Your task to perform on an android device: uninstall "Microsoft Authenticator" Image 0: 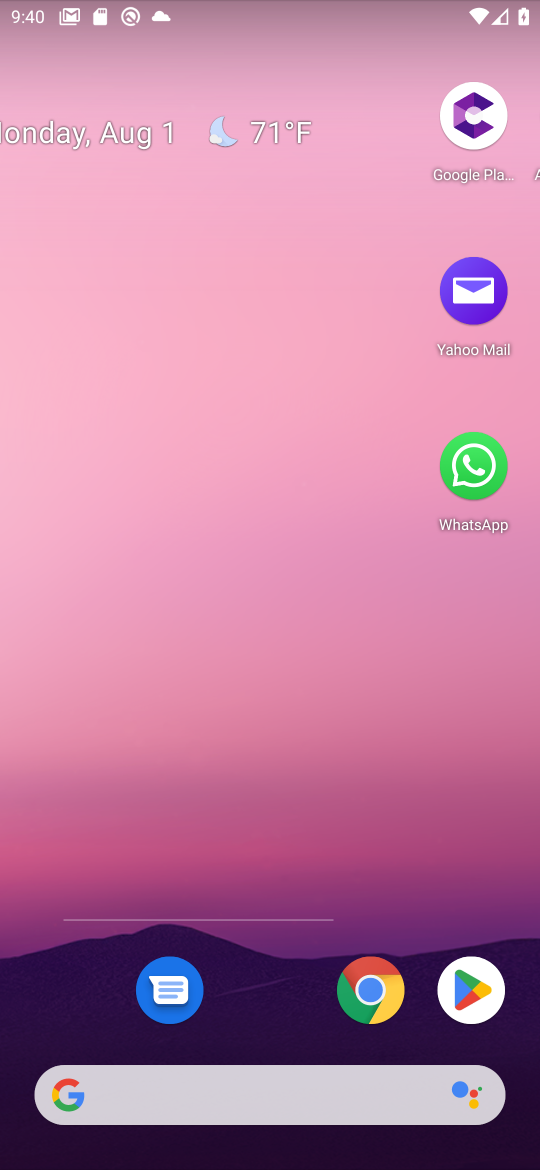
Step 0: press home button
Your task to perform on an android device: uninstall "Microsoft Authenticator" Image 1: 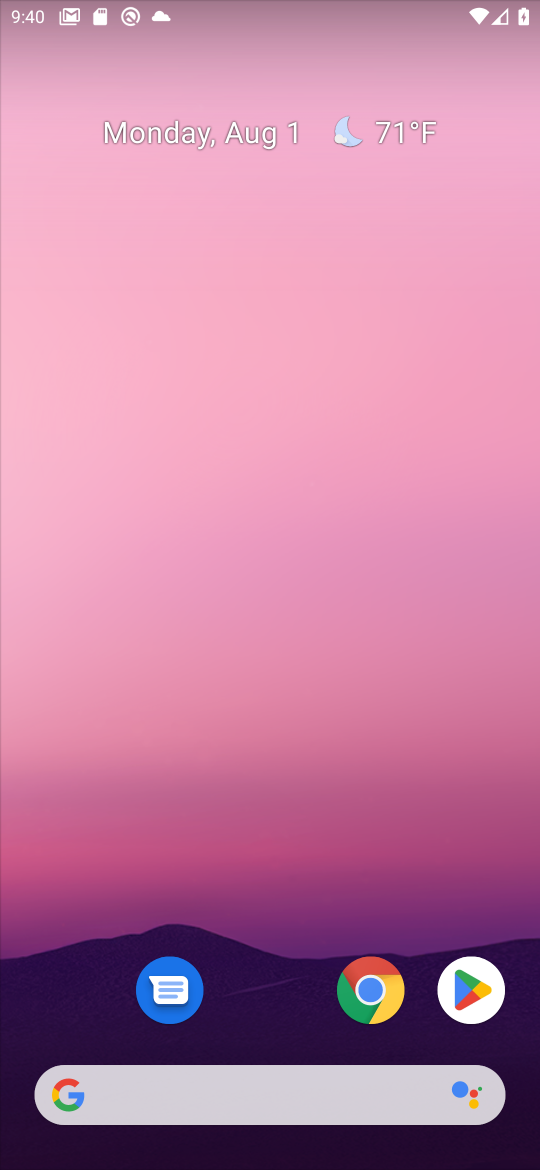
Step 1: press home button
Your task to perform on an android device: uninstall "Microsoft Authenticator" Image 2: 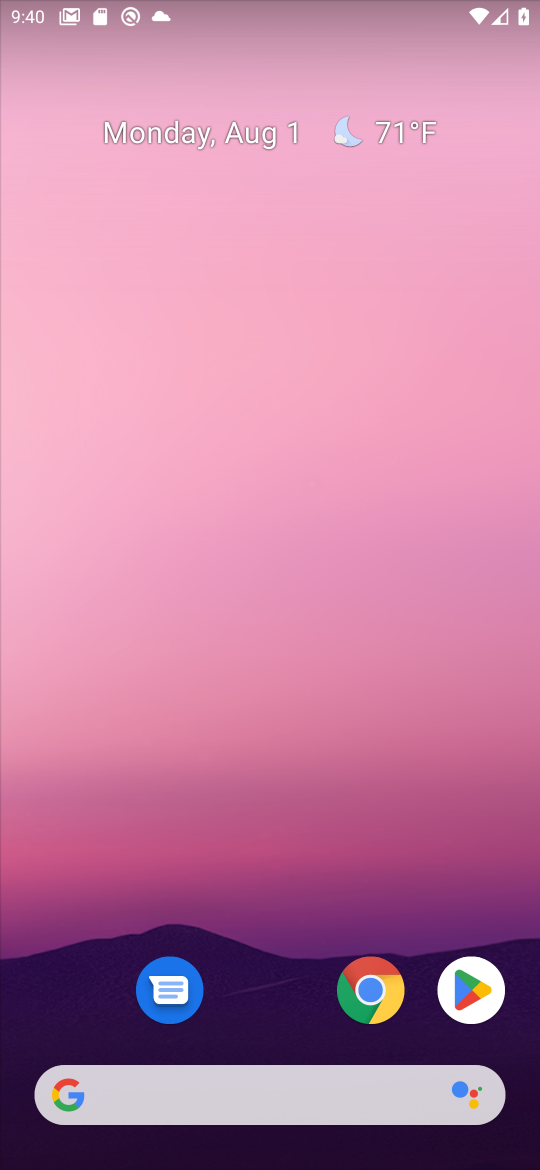
Step 2: click (450, 1026)
Your task to perform on an android device: uninstall "Microsoft Authenticator" Image 3: 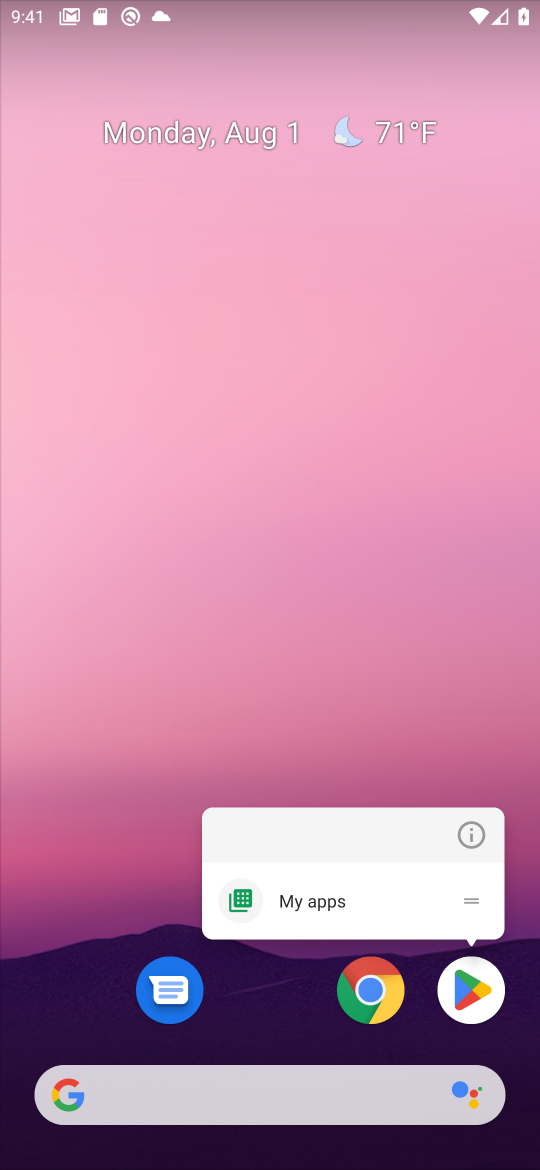
Step 3: click (470, 993)
Your task to perform on an android device: uninstall "Microsoft Authenticator" Image 4: 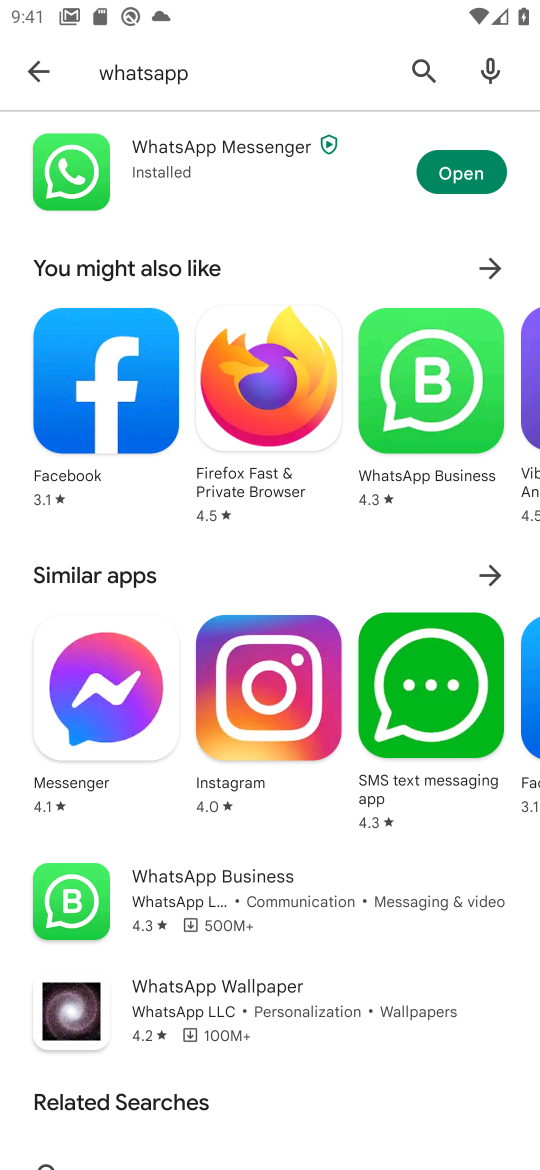
Step 4: click (420, 74)
Your task to perform on an android device: uninstall "Microsoft Authenticator" Image 5: 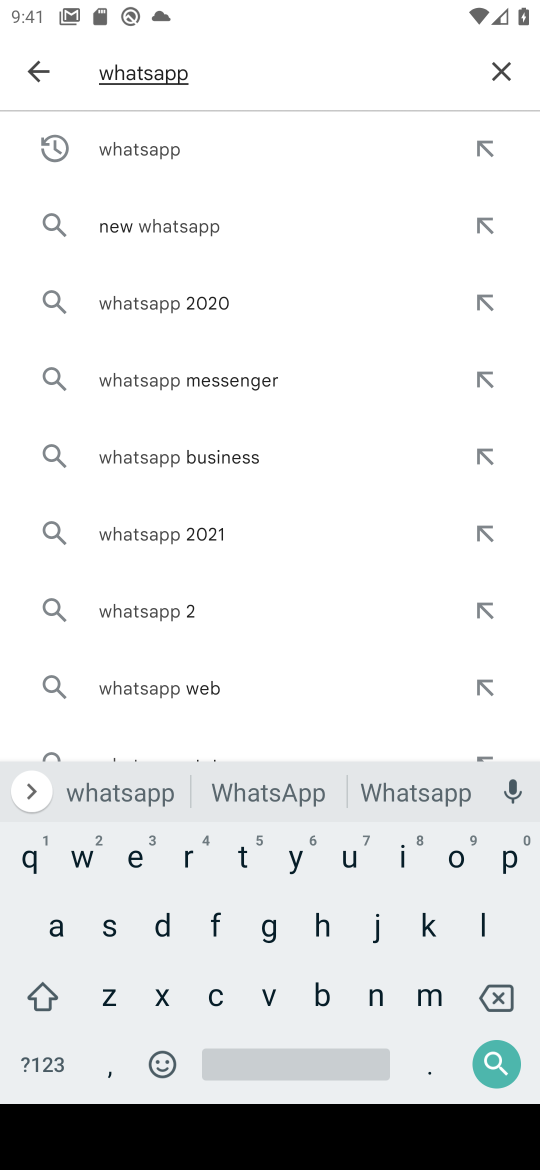
Step 5: click (493, 69)
Your task to perform on an android device: uninstall "Microsoft Authenticator" Image 6: 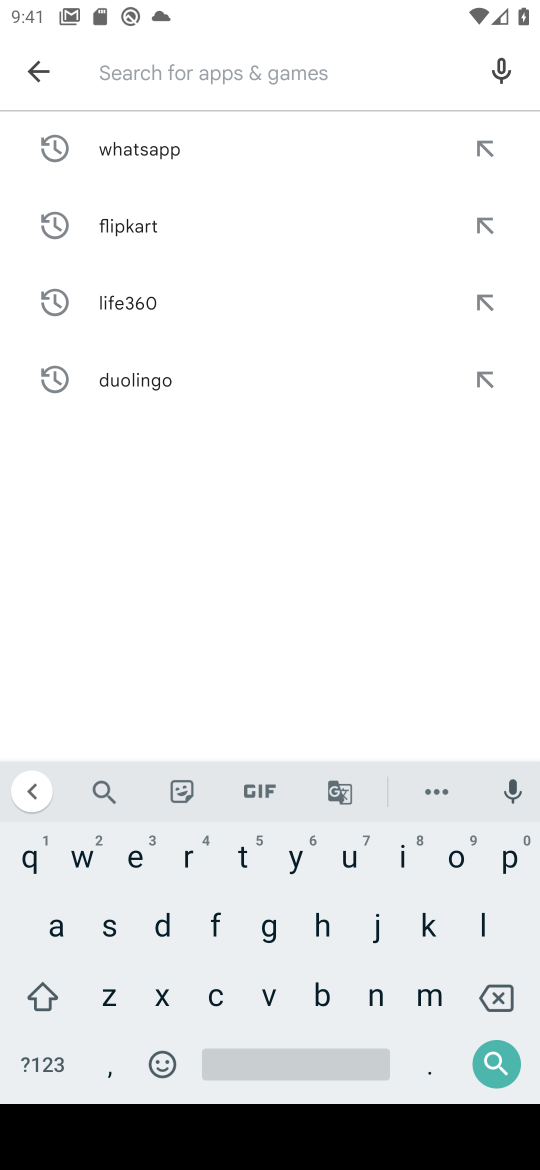
Step 6: click (42, 931)
Your task to perform on an android device: uninstall "Microsoft Authenticator" Image 7: 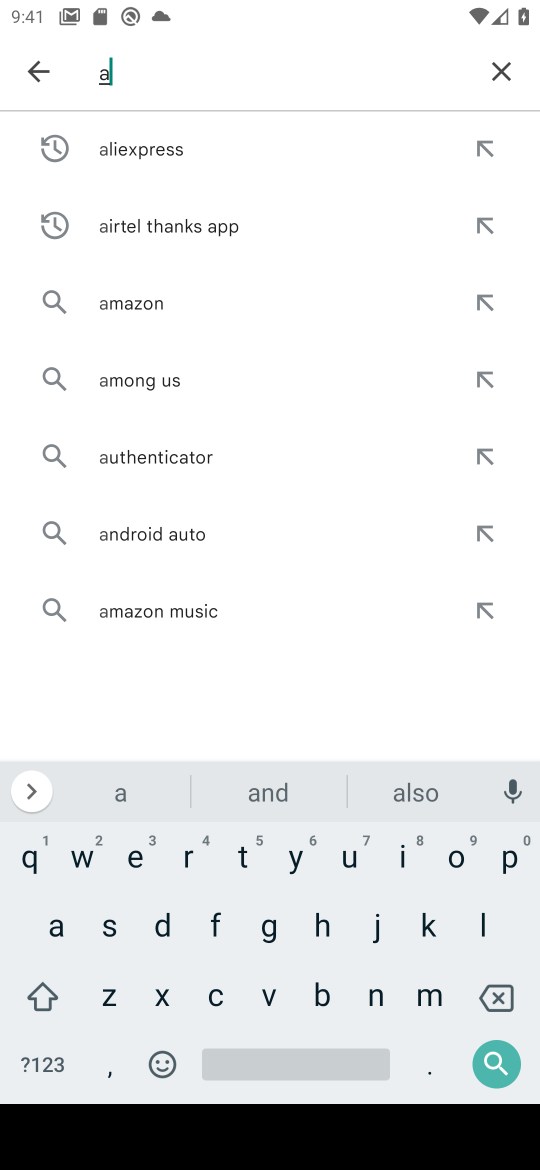
Step 7: click (360, 853)
Your task to perform on an android device: uninstall "Microsoft Authenticator" Image 8: 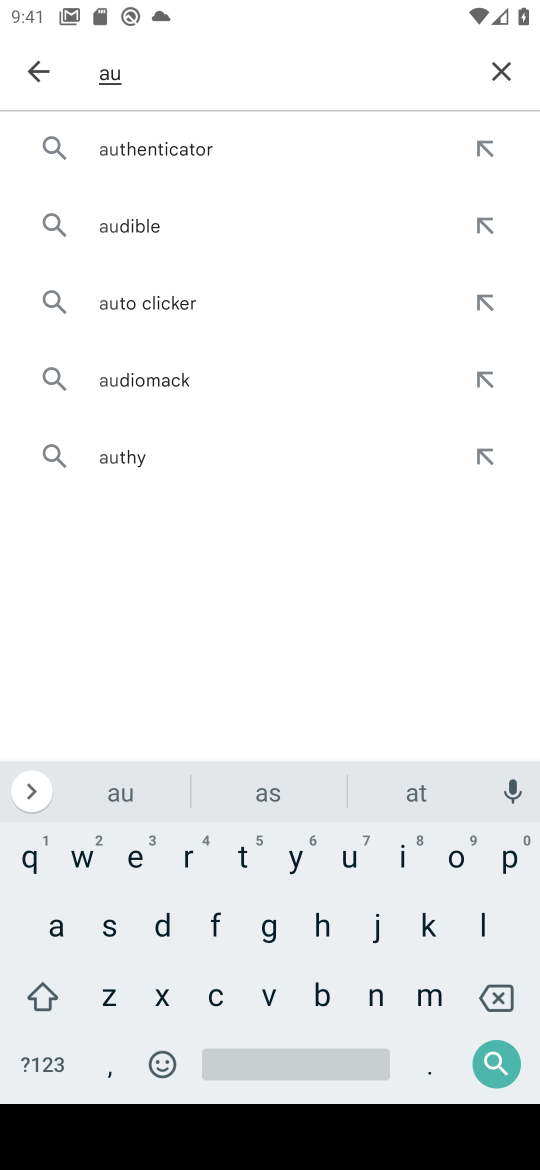
Step 8: click (231, 852)
Your task to perform on an android device: uninstall "Microsoft Authenticator" Image 9: 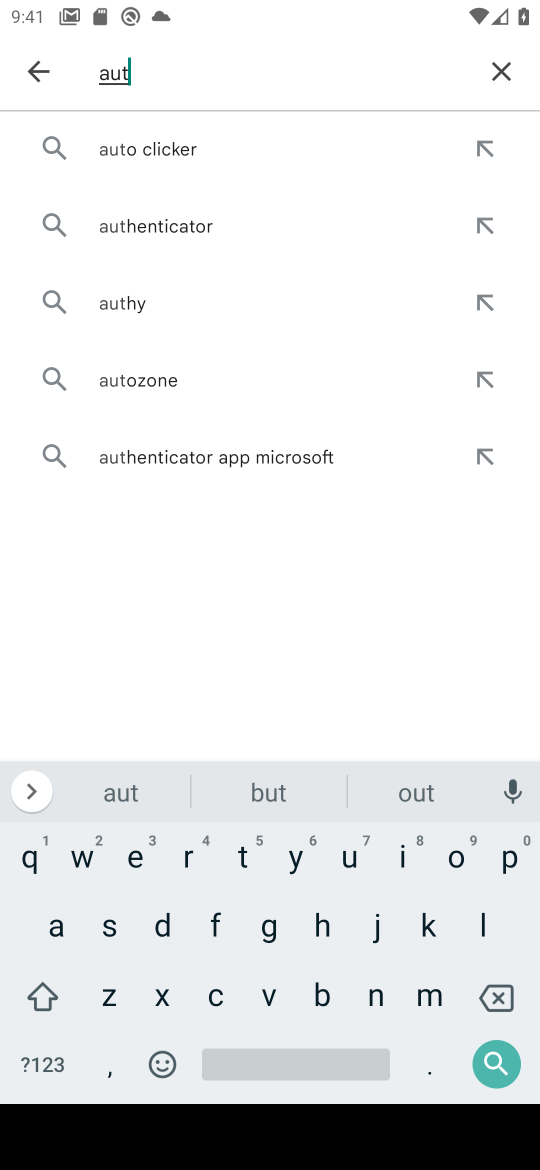
Step 9: click (318, 921)
Your task to perform on an android device: uninstall "Microsoft Authenticator" Image 10: 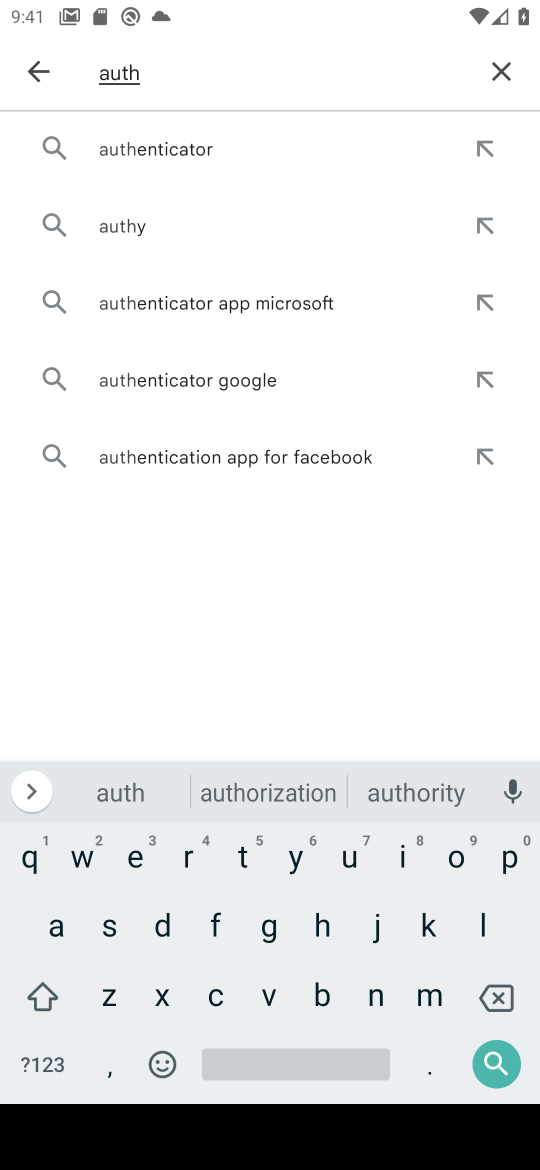
Step 10: click (175, 145)
Your task to perform on an android device: uninstall "Microsoft Authenticator" Image 11: 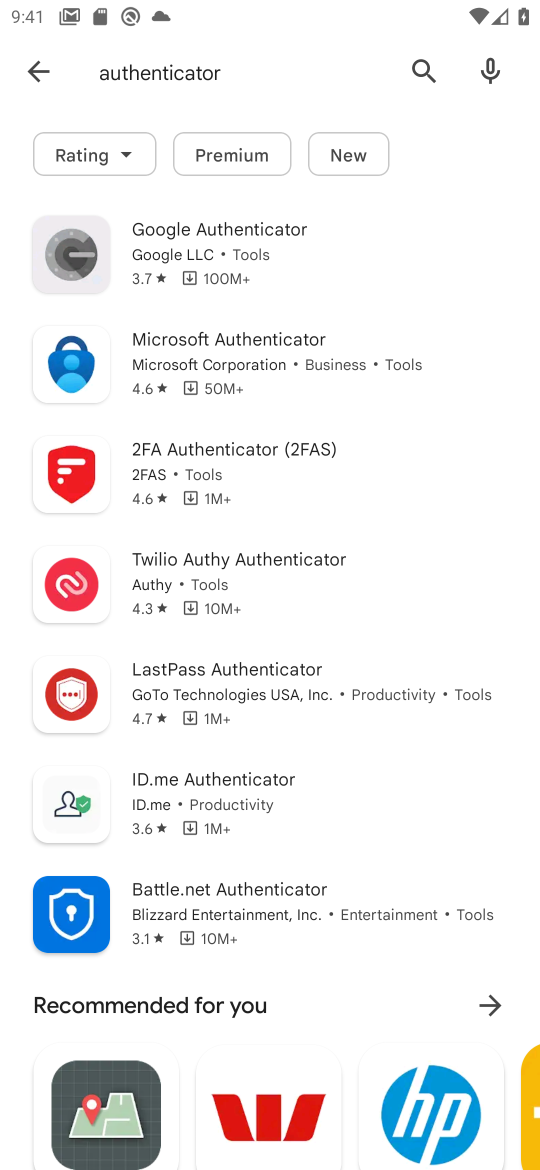
Step 11: click (245, 382)
Your task to perform on an android device: uninstall "Microsoft Authenticator" Image 12: 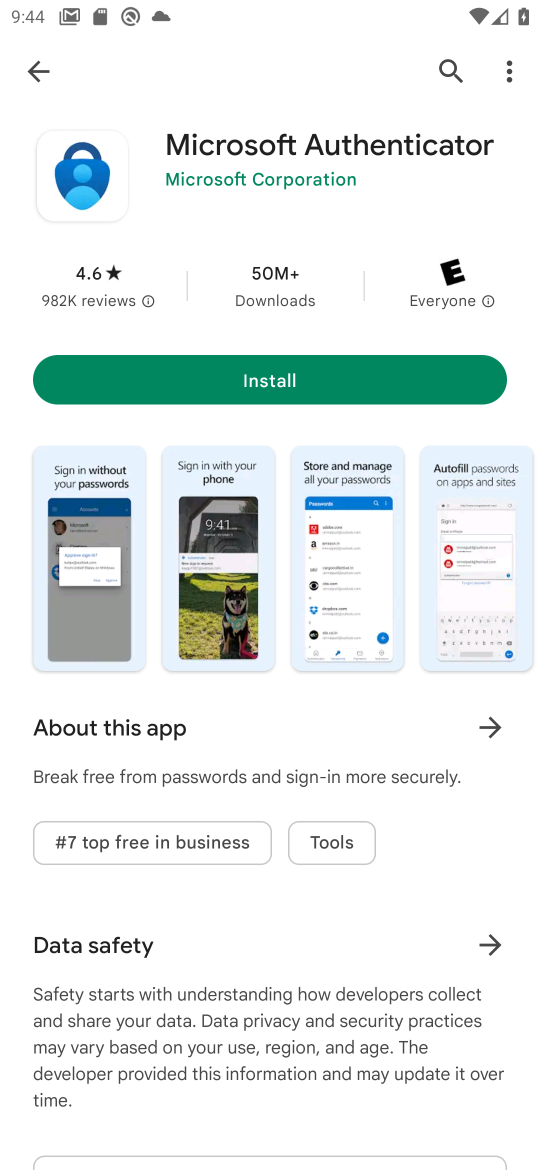
Step 12: task complete